Your task to perform on an android device: When is my next appointment? Image 0: 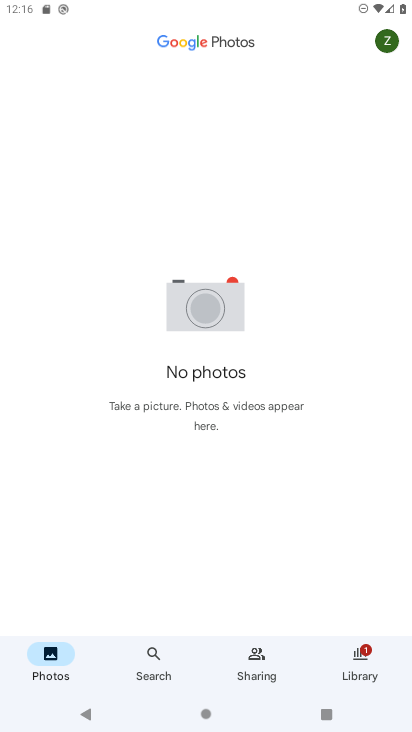
Step 0: press home button
Your task to perform on an android device: When is my next appointment? Image 1: 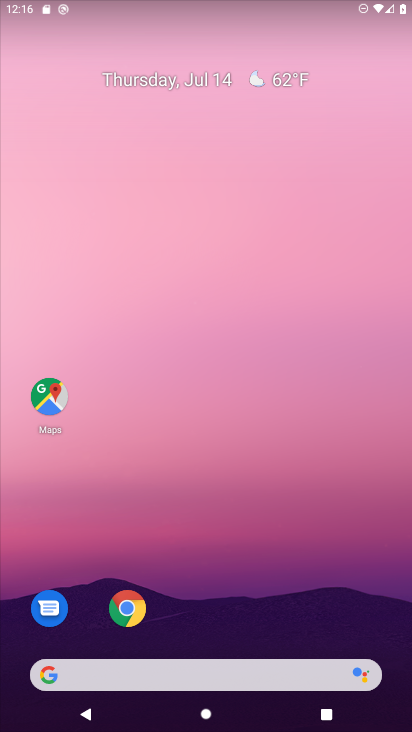
Step 1: drag from (230, 716) to (234, 61)
Your task to perform on an android device: When is my next appointment? Image 2: 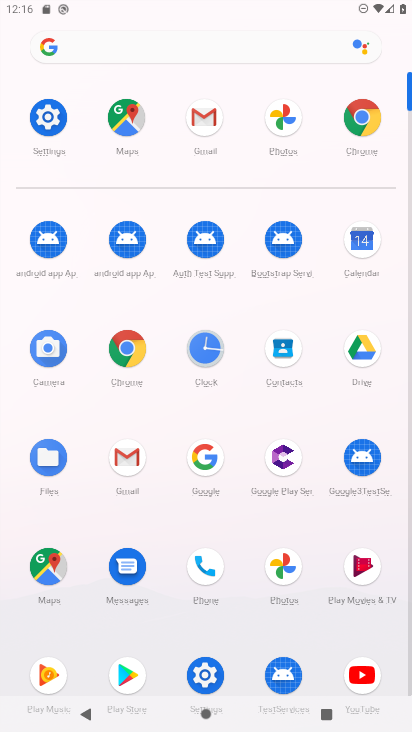
Step 2: click (359, 237)
Your task to perform on an android device: When is my next appointment? Image 3: 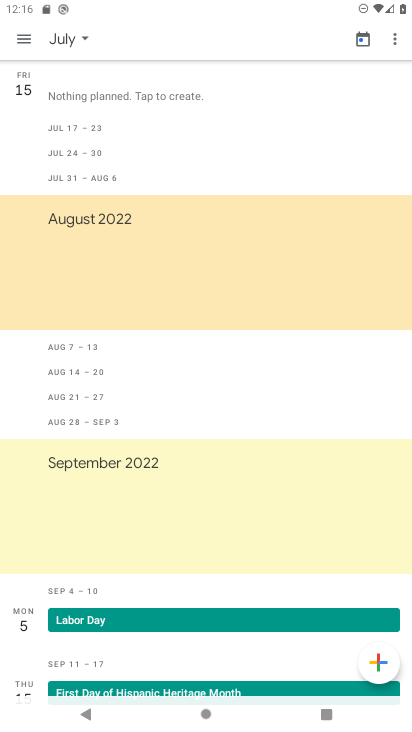
Step 3: click (81, 40)
Your task to perform on an android device: When is my next appointment? Image 4: 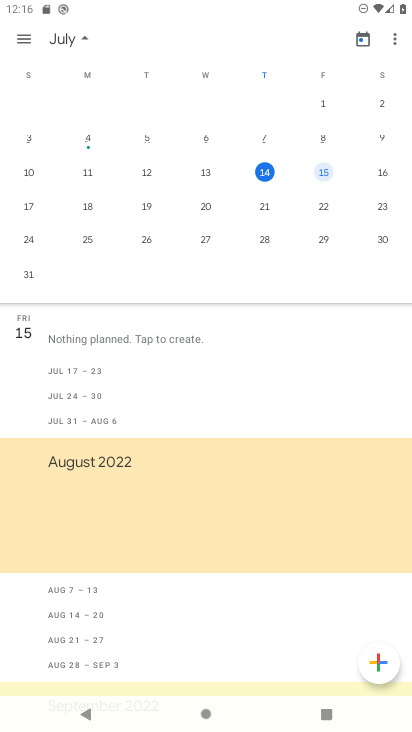
Step 4: click (326, 173)
Your task to perform on an android device: When is my next appointment? Image 5: 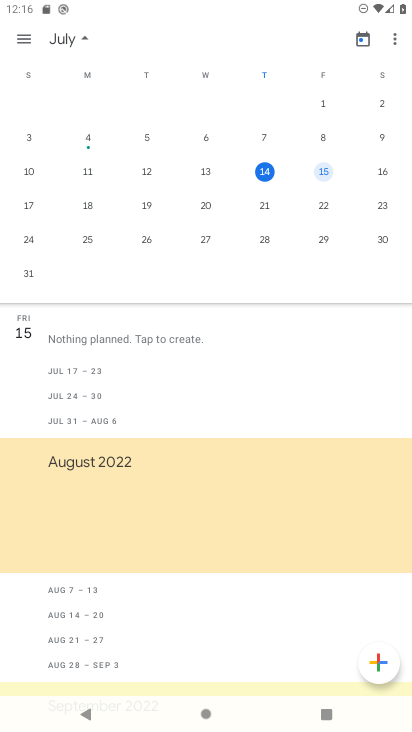
Step 5: click (27, 322)
Your task to perform on an android device: When is my next appointment? Image 6: 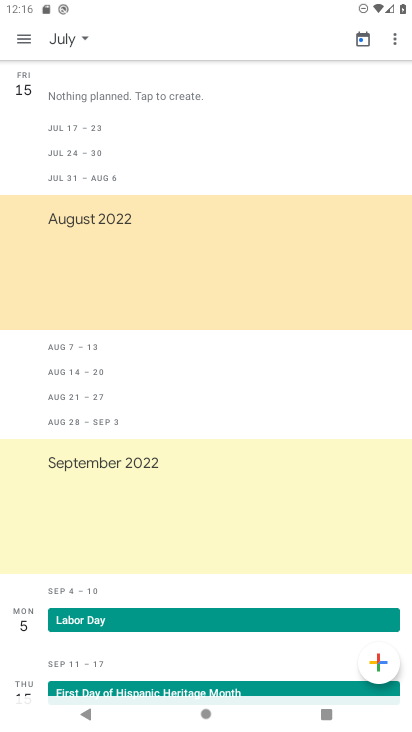
Step 6: task complete